Your task to perform on an android device: turn on location history Image 0: 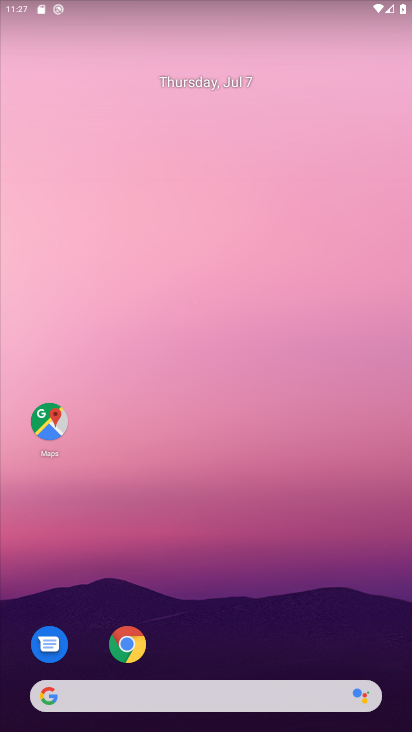
Step 0: drag from (128, 495) to (275, 10)
Your task to perform on an android device: turn on location history Image 1: 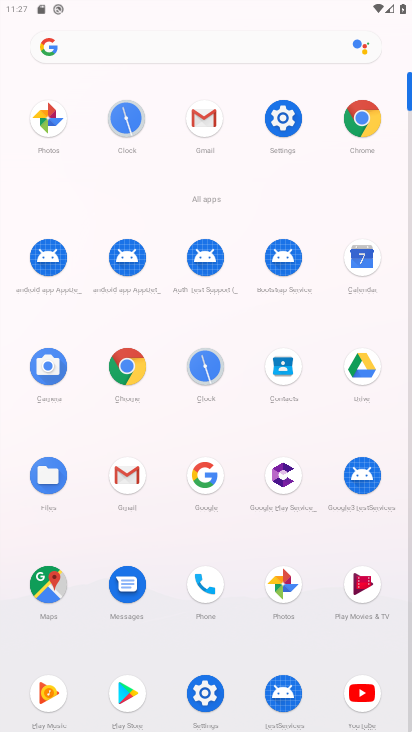
Step 1: click (223, 701)
Your task to perform on an android device: turn on location history Image 2: 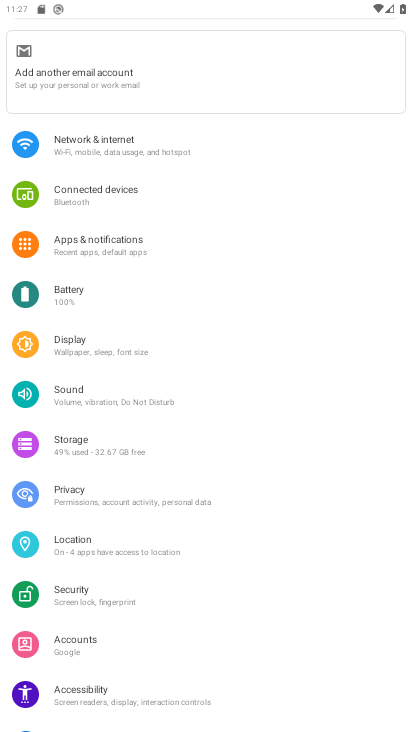
Step 2: click (66, 538)
Your task to perform on an android device: turn on location history Image 3: 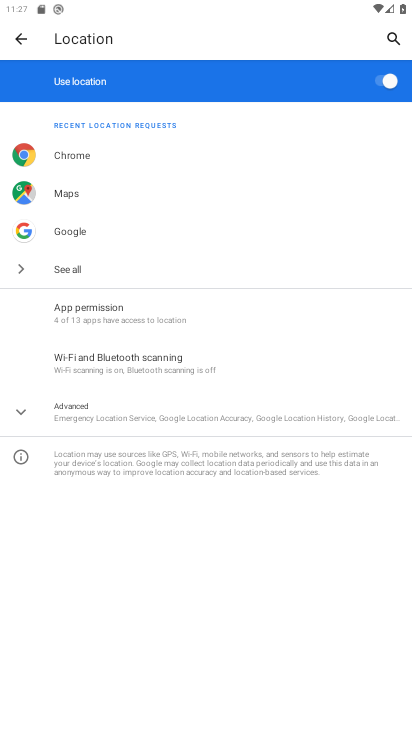
Step 3: click (13, 36)
Your task to perform on an android device: turn on location history Image 4: 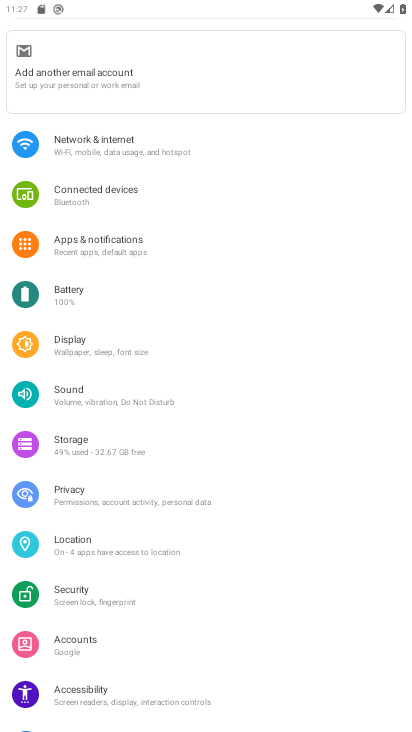
Step 4: click (91, 558)
Your task to perform on an android device: turn on location history Image 5: 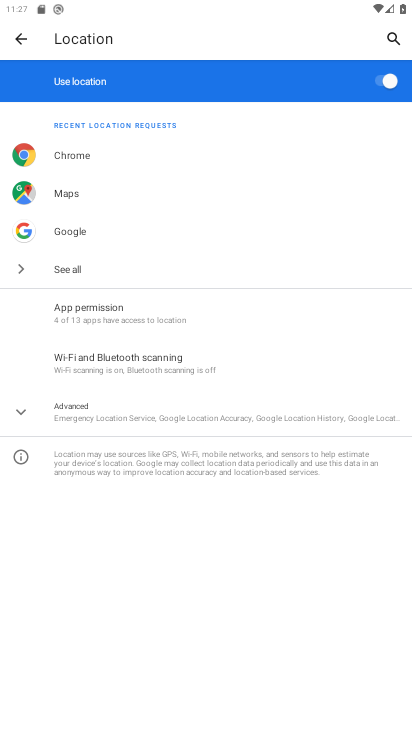
Step 5: click (19, 39)
Your task to perform on an android device: turn on location history Image 6: 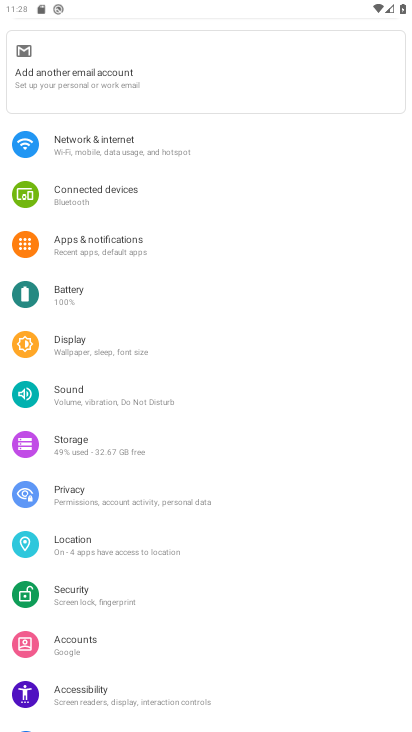
Step 6: click (76, 542)
Your task to perform on an android device: turn on location history Image 7: 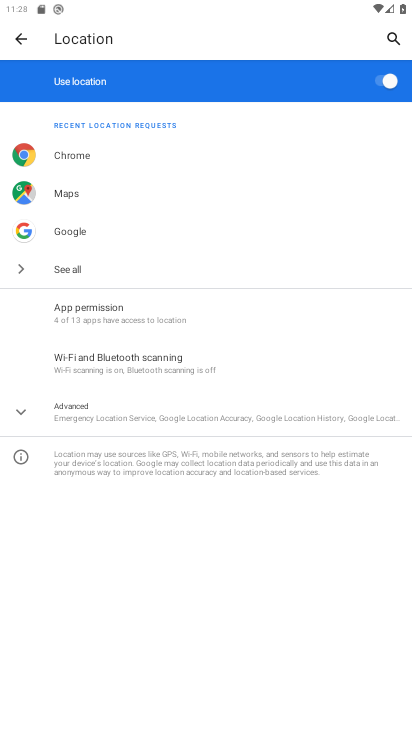
Step 7: click (93, 412)
Your task to perform on an android device: turn on location history Image 8: 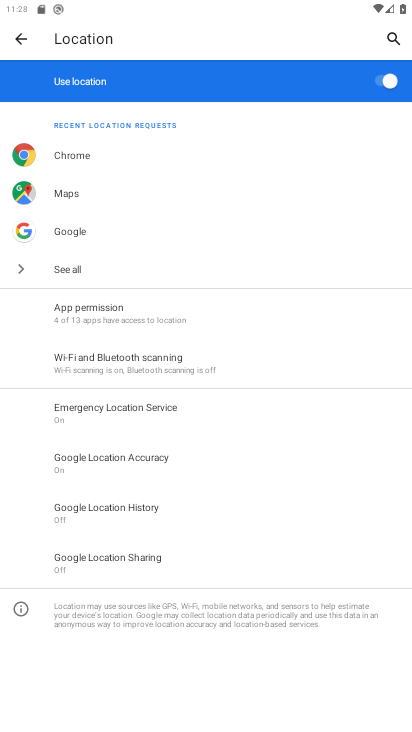
Step 8: click (68, 271)
Your task to perform on an android device: turn on location history Image 9: 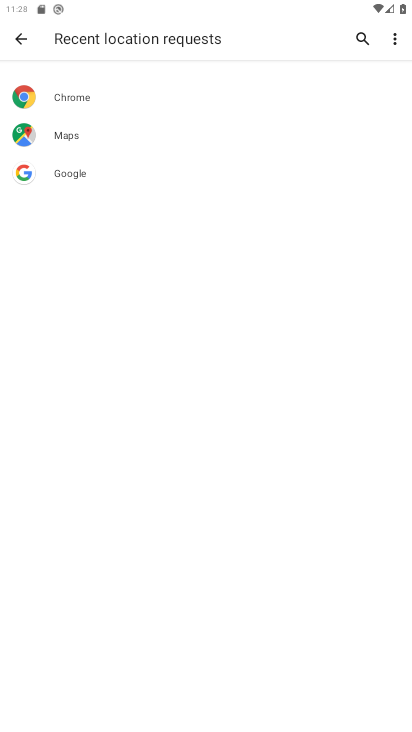
Step 9: task complete